Your task to perform on an android device: open app "ZOOM Cloud Meetings" (install if not already installed) Image 0: 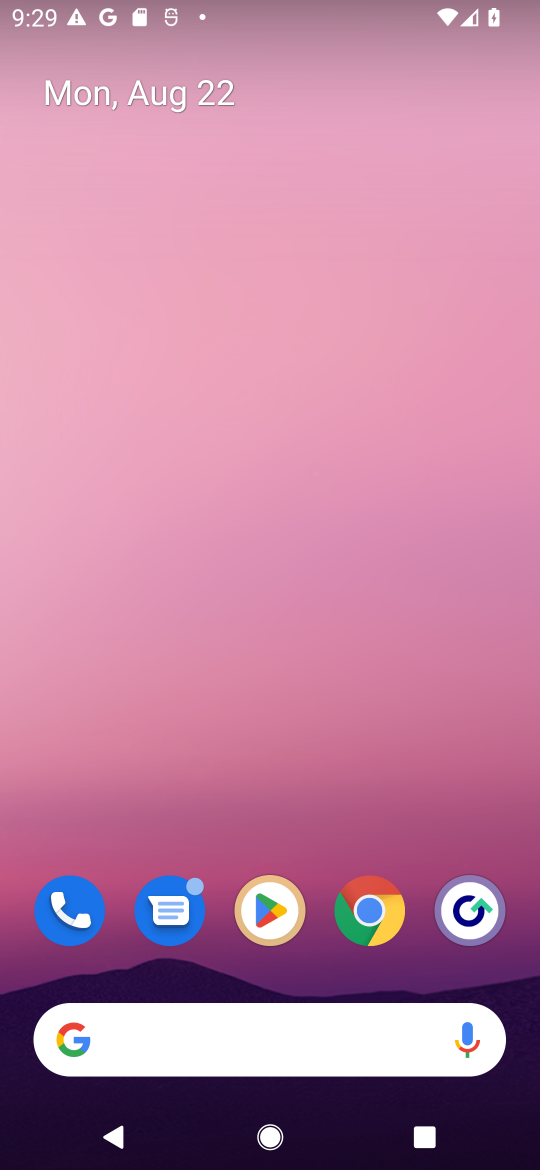
Step 0: click (288, 917)
Your task to perform on an android device: open app "ZOOM Cloud Meetings" (install if not already installed) Image 1: 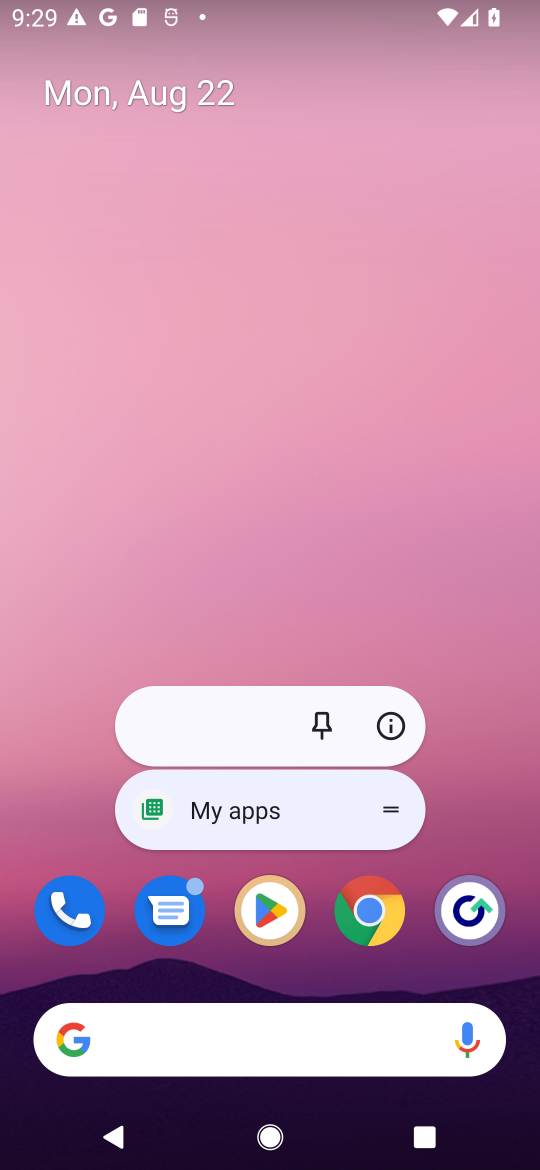
Step 1: click (288, 917)
Your task to perform on an android device: open app "ZOOM Cloud Meetings" (install if not already installed) Image 2: 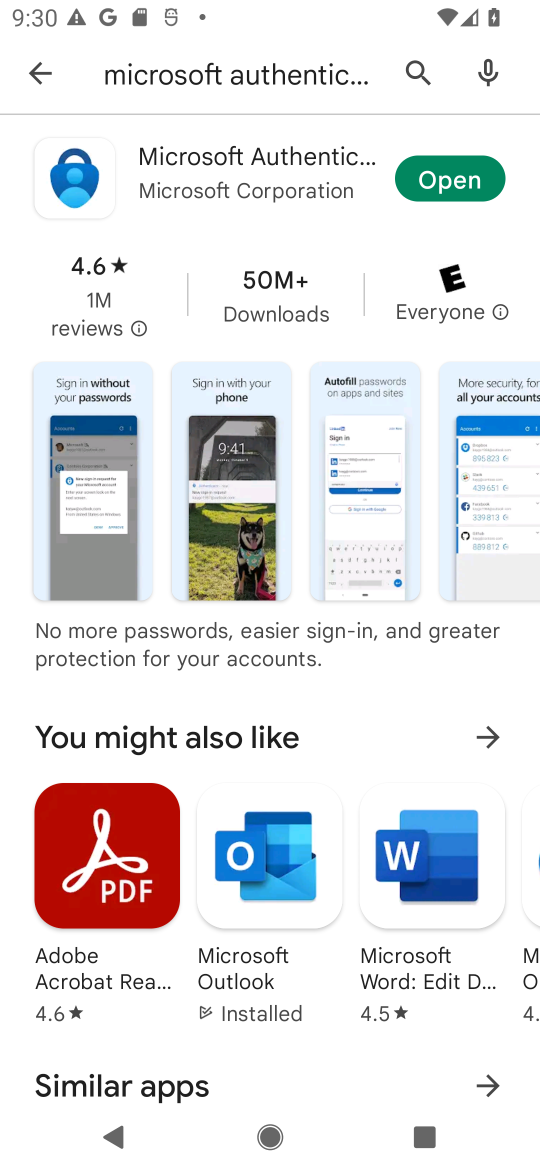
Step 2: click (402, 59)
Your task to perform on an android device: open app "ZOOM Cloud Meetings" (install if not already installed) Image 3: 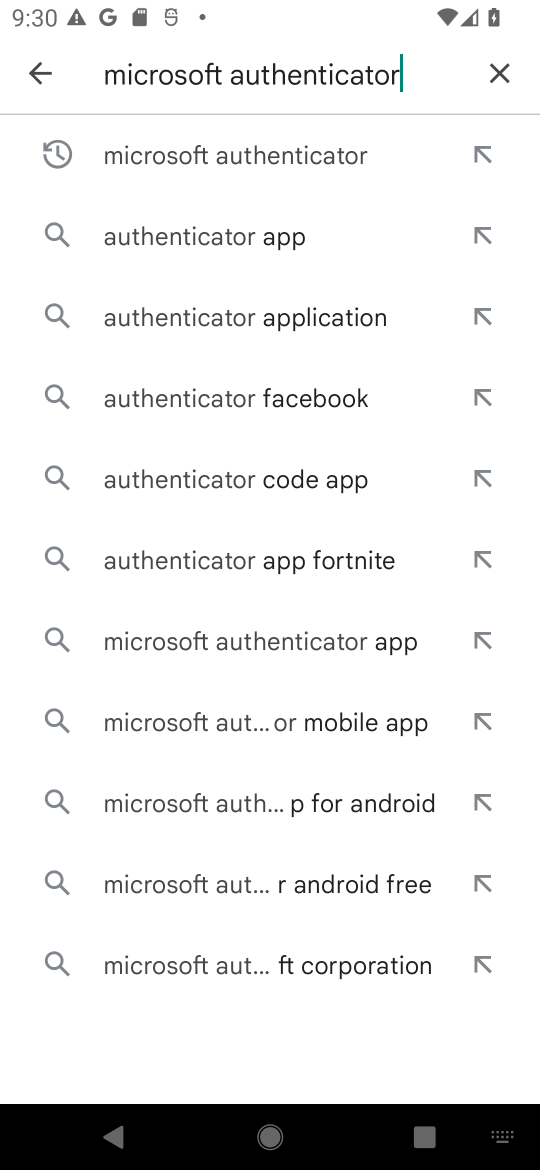
Step 3: click (501, 85)
Your task to perform on an android device: open app "ZOOM Cloud Meetings" (install if not already installed) Image 4: 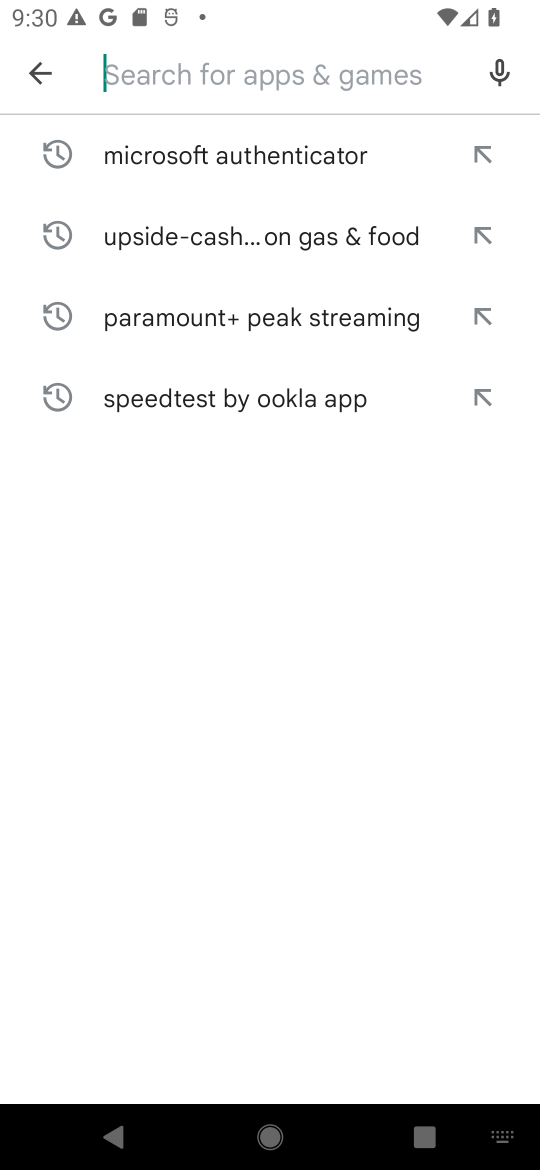
Step 4: type "ZOOM Cloud Meetings"
Your task to perform on an android device: open app "ZOOM Cloud Meetings" (install if not already installed) Image 5: 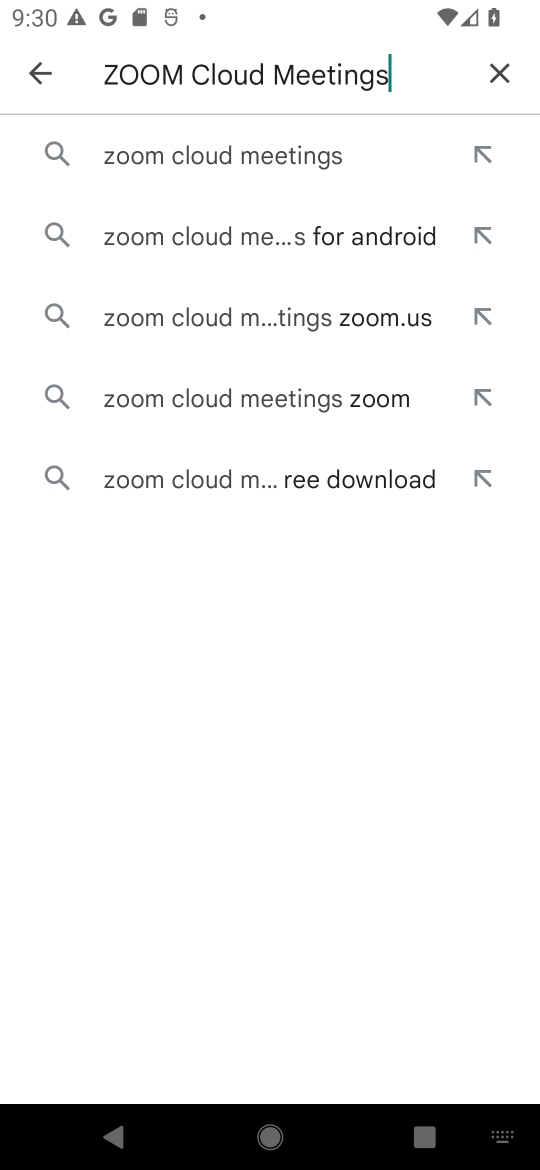
Step 5: click (345, 166)
Your task to perform on an android device: open app "ZOOM Cloud Meetings" (install if not already installed) Image 6: 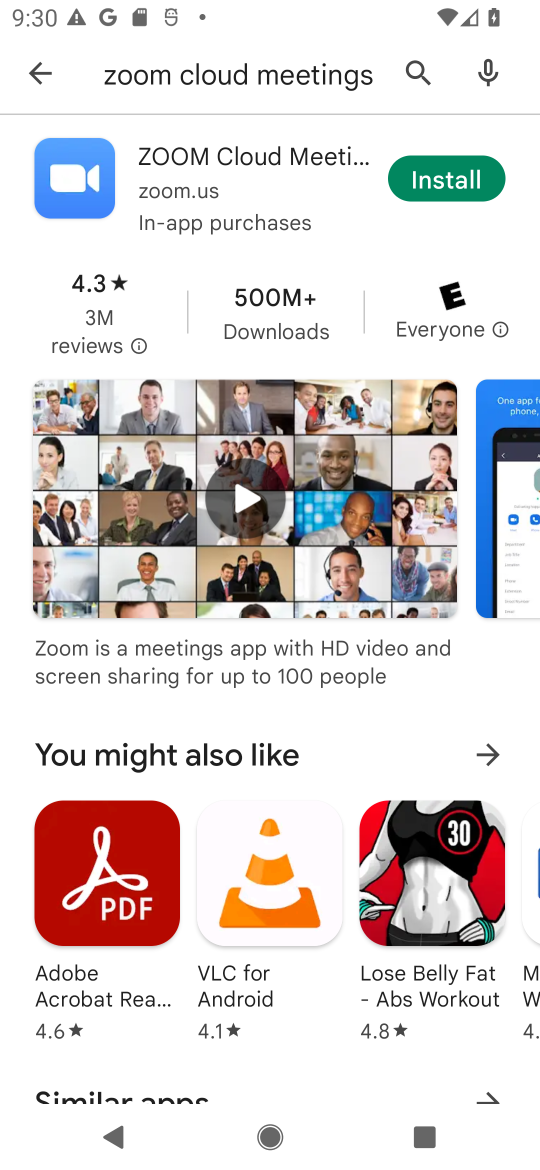
Step 6: click (413, 191)
Your task to perform on an android device: open app "ZOOM Cloud Meetings" (install if not already installed) Image 7: 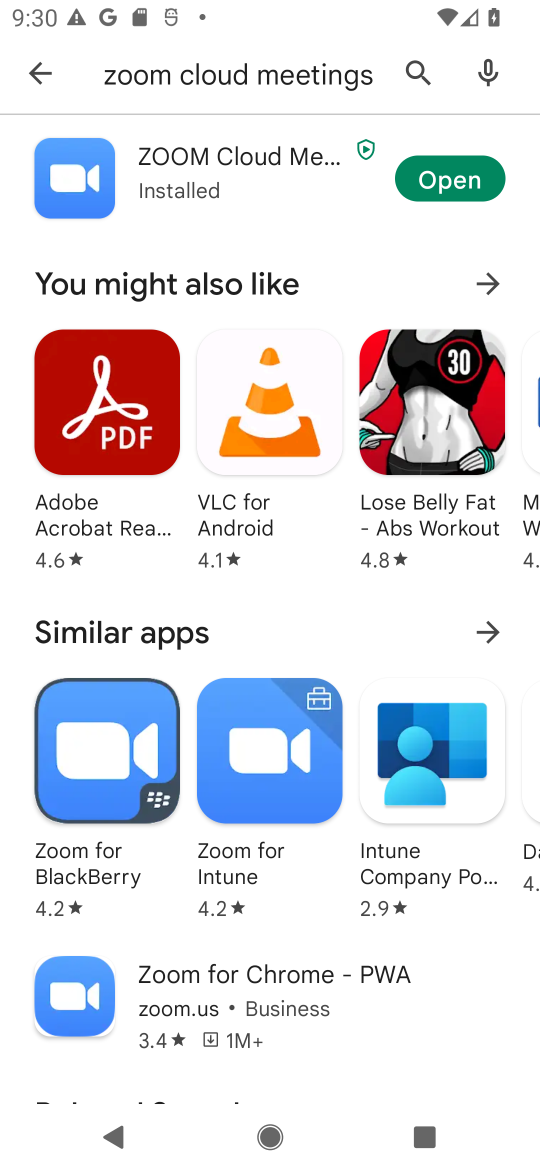
Step 7: click (435, 191)
Your task to perform on an android device: open app "ZOOM Cloud Meetings" (install if not already installed) Image 8: 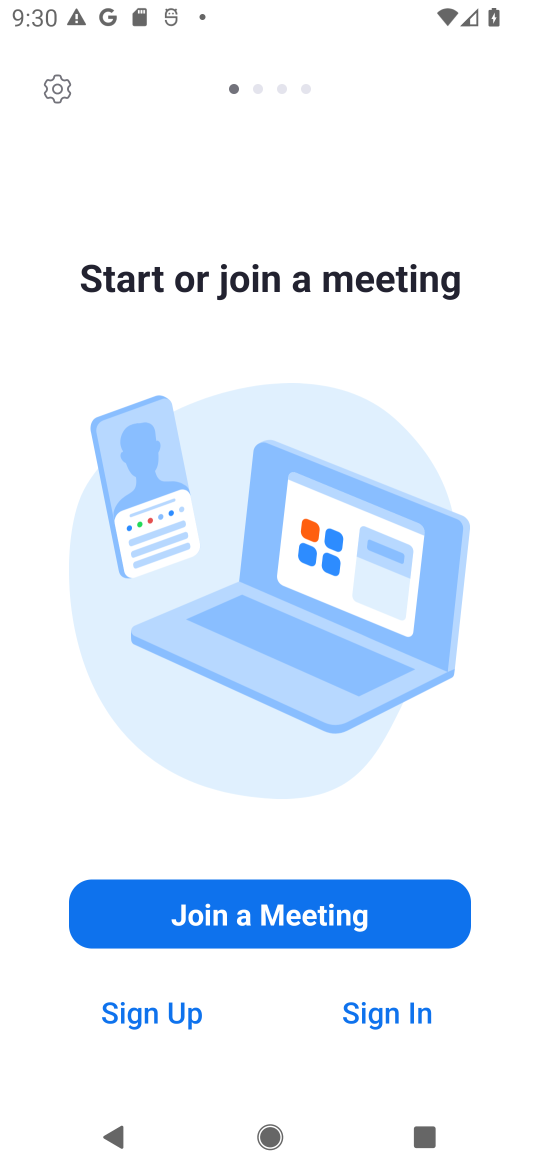
Step 8: task complete